Your task to perform on an android device: change the clock display to show seconds Image 0: 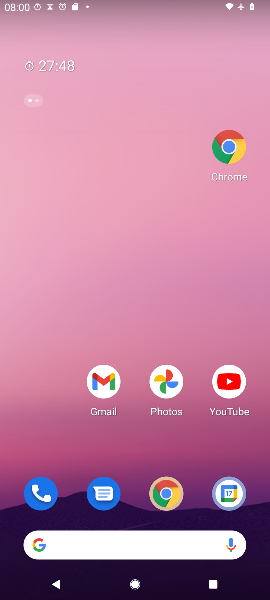
Step 0: press home button
Your task to perform on an android device: change the clock display to show seconds Image 1: 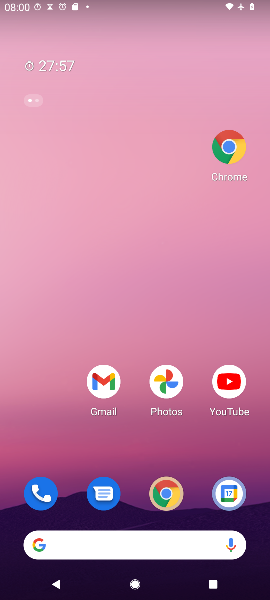
Step 1: drag from (153, 437) to (162, 123)
Your task to perform on an android device: change the clock display to show seconds Image 2: 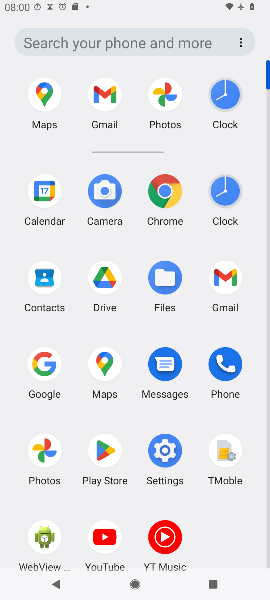
Step 2: click (225, 98)
Your task to perform on an android device: change the clock display to show seconds Image 3: 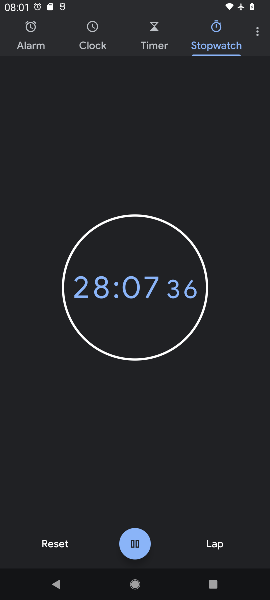
Step 3: click (253, 40)
Your task to perform on an android device: change the clock display to show seconds Image 4: 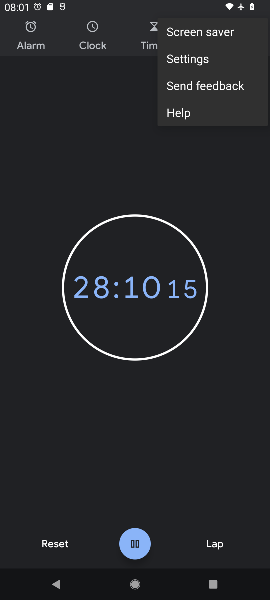
Step 4: click (188, 63)
Your task to perform on an android device: change the clock display to show seconds Image 5: 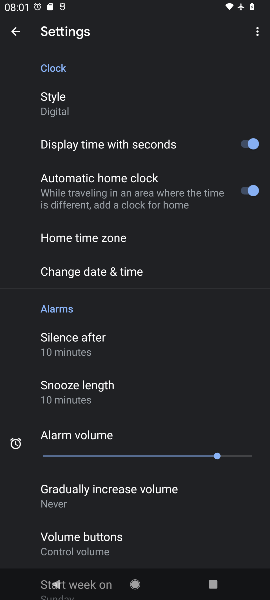
Step 5: task complete